Your task to perform on an android device: turn notification dots on Image 0: 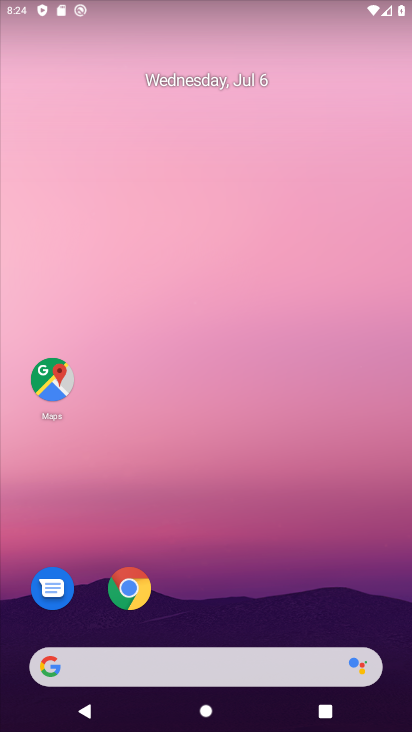
Step 0: drag from (293, 565) to (224, 21)
Your task to perform on an android device: turn notification dots on Image 1: 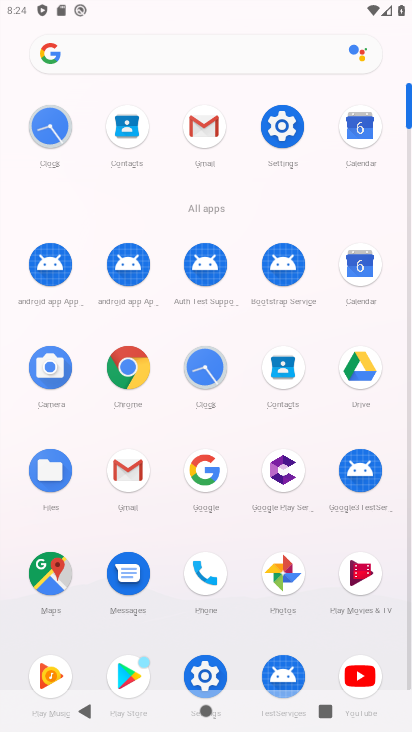
Step 1: click (281, 127)
Your task to perform on an android device: turn notification dots on Image 2: 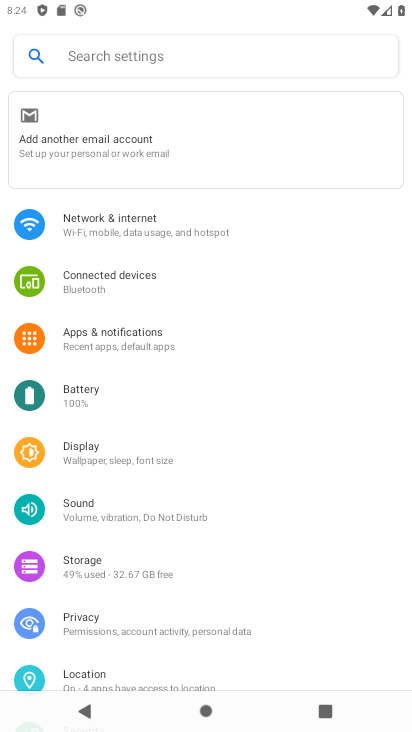
Step 2: click (120, 332)
Your task to perform on an android device: turn notification dots on Image 3: 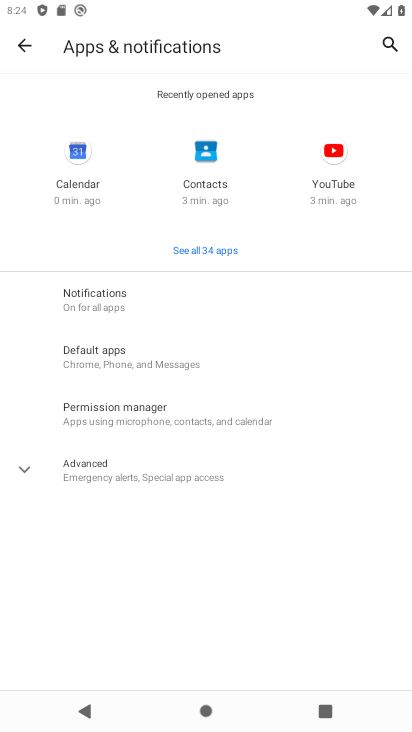
Step 3: click (91, 290)
Your task to perform on an android device: turn notification dots on Image 4: 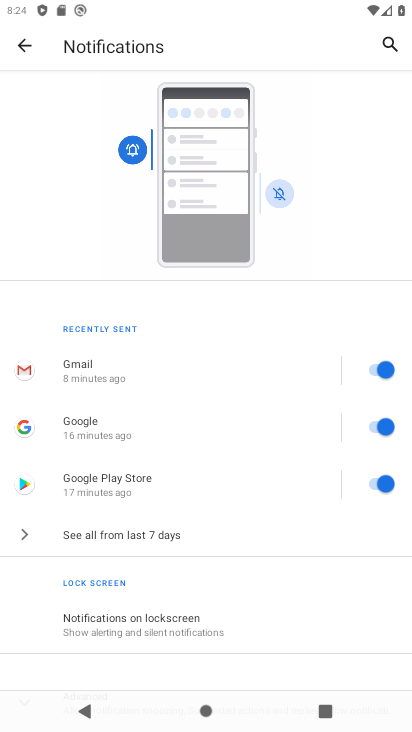
Step 4: drag from (235, 604) to (235, 393)
Your task to perform on an android device: turn notification dots on Image 5: 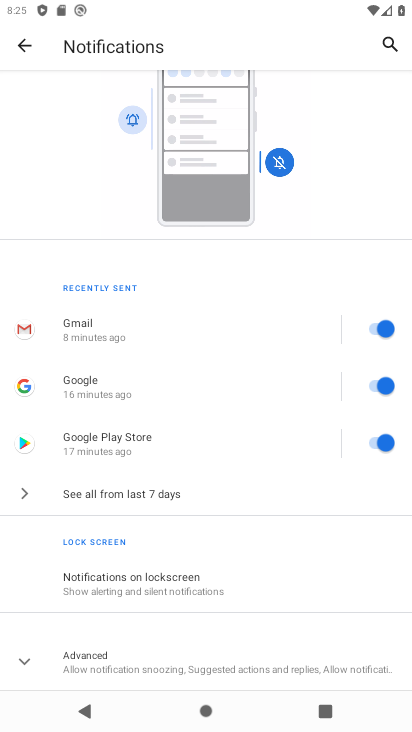
Step 5: click (32, 659)
Your task to perform on an android device: turn notification dots on Image 6: 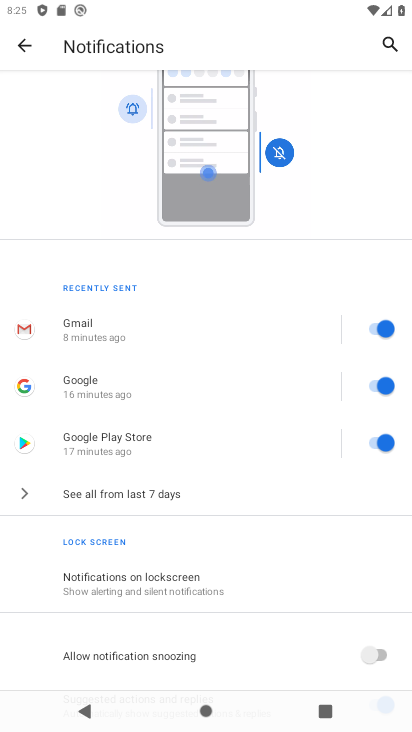
Step 6: task complete